Your task to perform on an android device: Open the web browser Image 0: 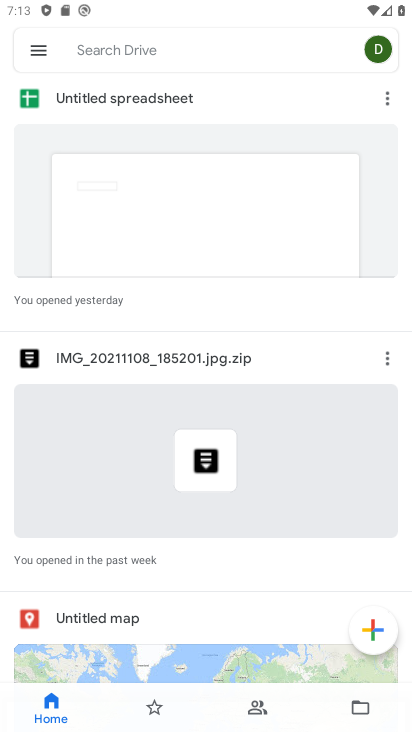
Step 0: press home button
Your task to perform on an android device: Open the web browser Image 1: 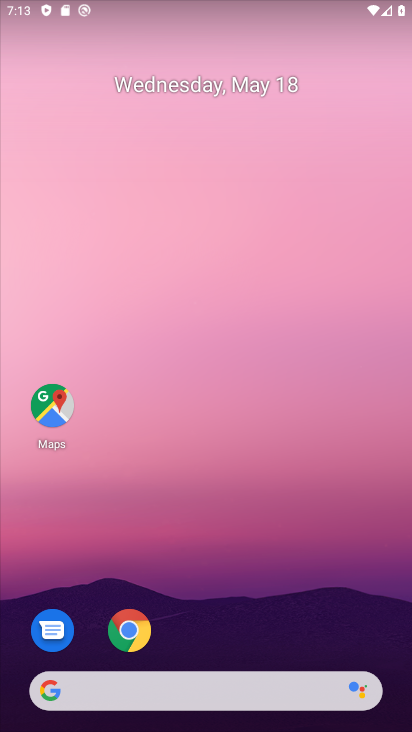
Step 1: click (133, 629)
Your task to perform on an android device: Open the web browser Image 2: 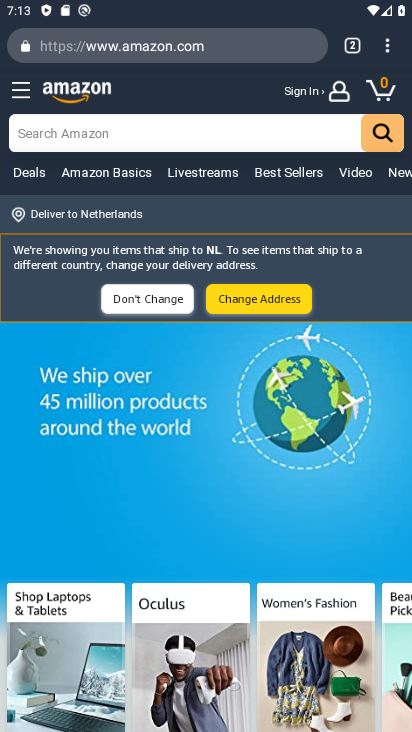
Step 2: task complete